Your task to perform on an android device: add a contact Image 0: 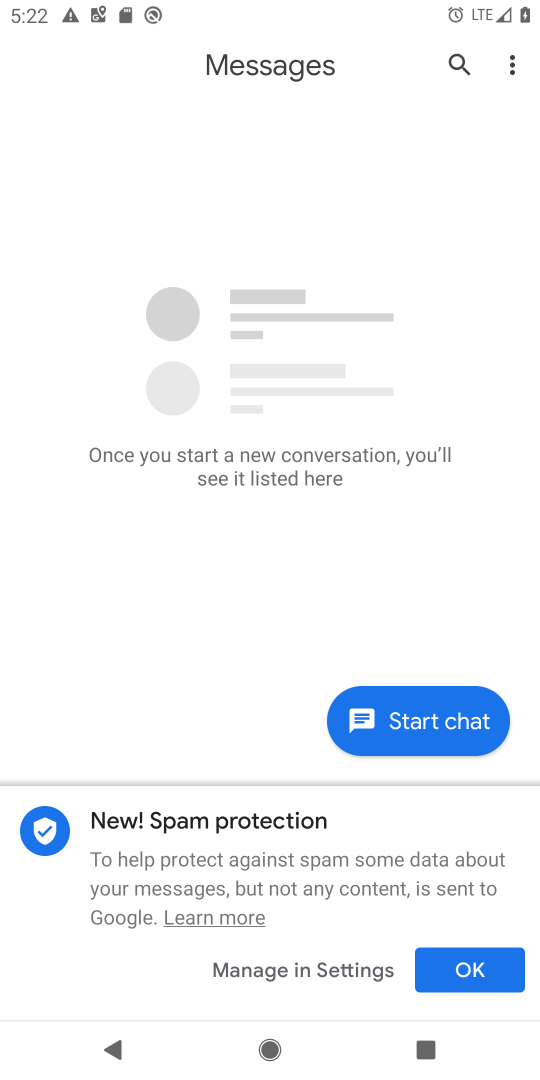
Step 0: press back button
Your task to perform on an android device: add a contact Image 1: 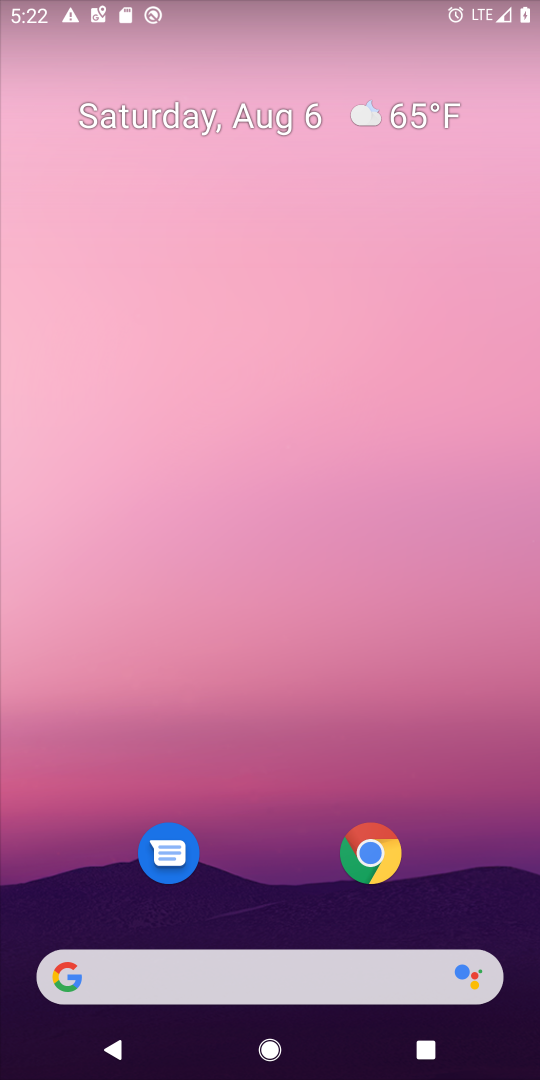
Step 1: drag from (233, 910) to (387, 108)
Your task to perform on an android device: add a contact Image 2: 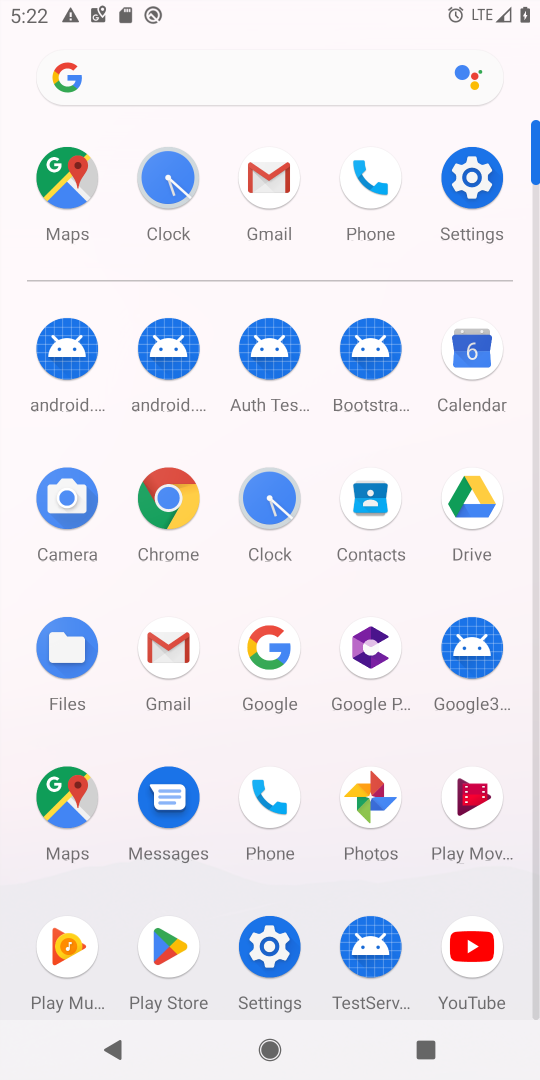
Step 2: click (373, 521)
Your task to perform on an android device: add a contact Image 3: 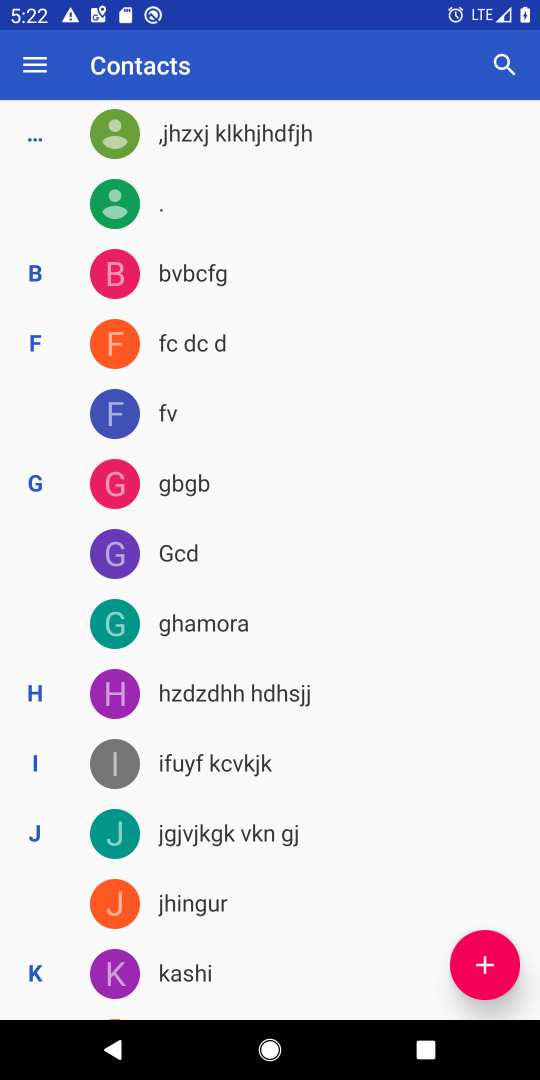
Step 3: click (470, 964)
Your task to perform on an android device: add a contact Image 4: 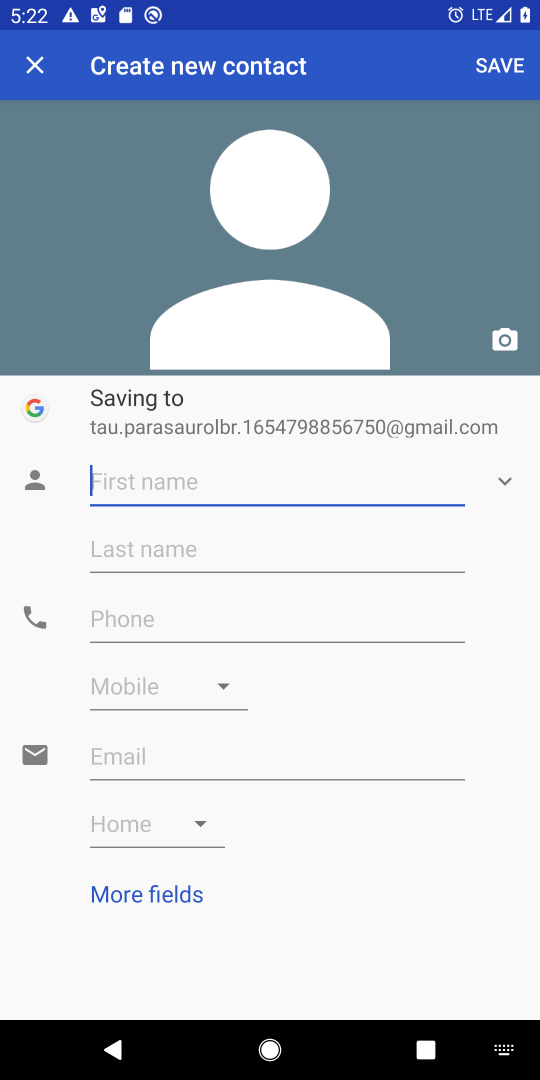
Step 4: click (194, 482)
Your task to perform on an android device: add a contact Image 5: 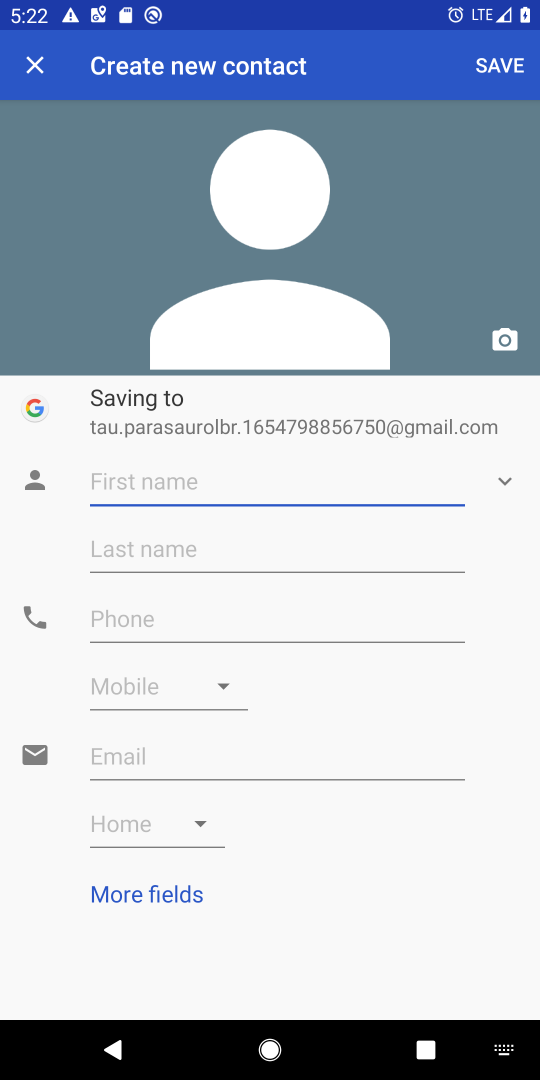
Step 5: type "hvhv"
Your task to perform on an android device: add a contact Image 6: 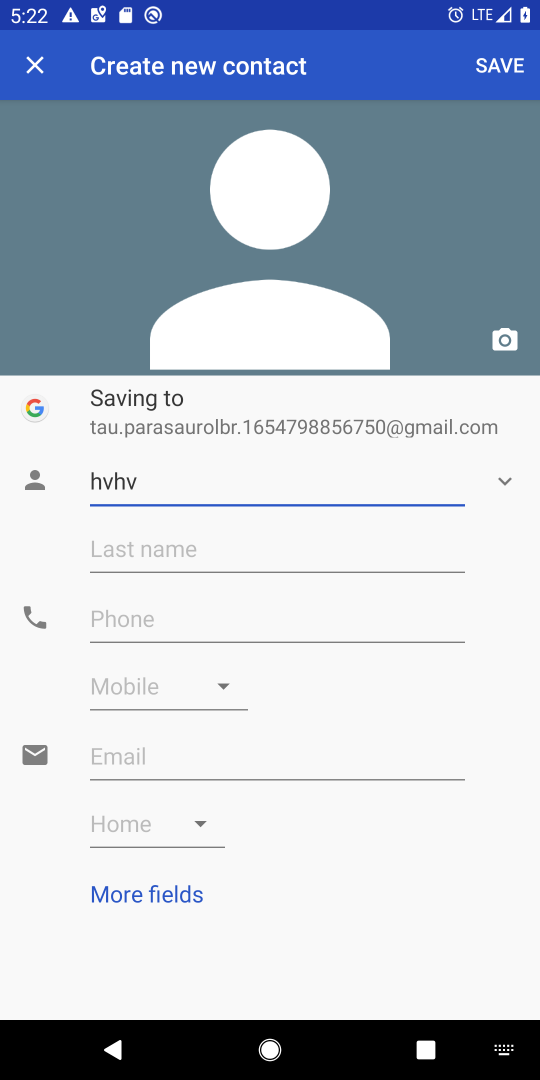
Step 6: click (113, 613)
Your task to perform on an android device: add a contact Image 7: 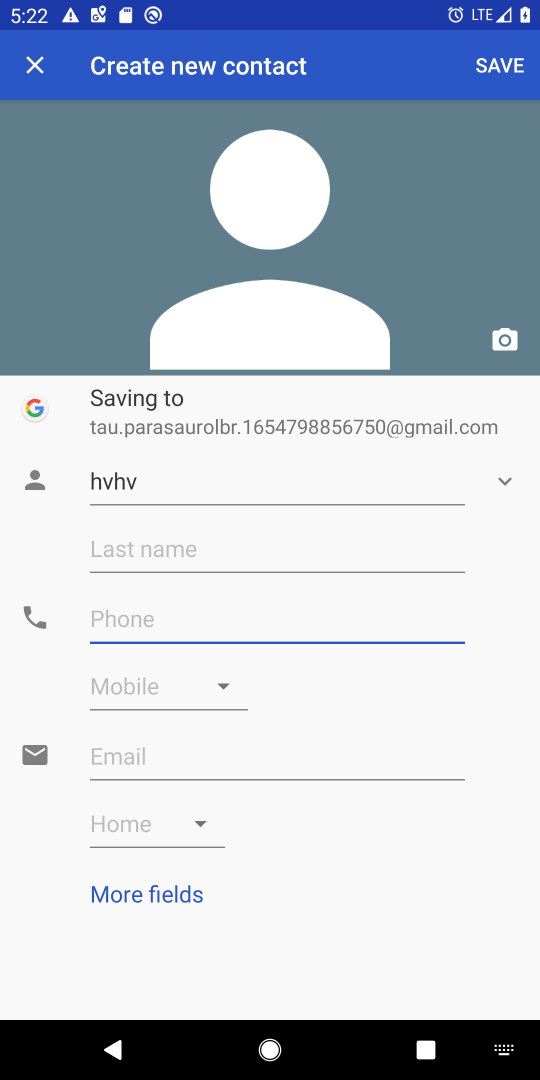
Step 7: type "787878"
Your task to perform on an android device: add a contact Image 8: 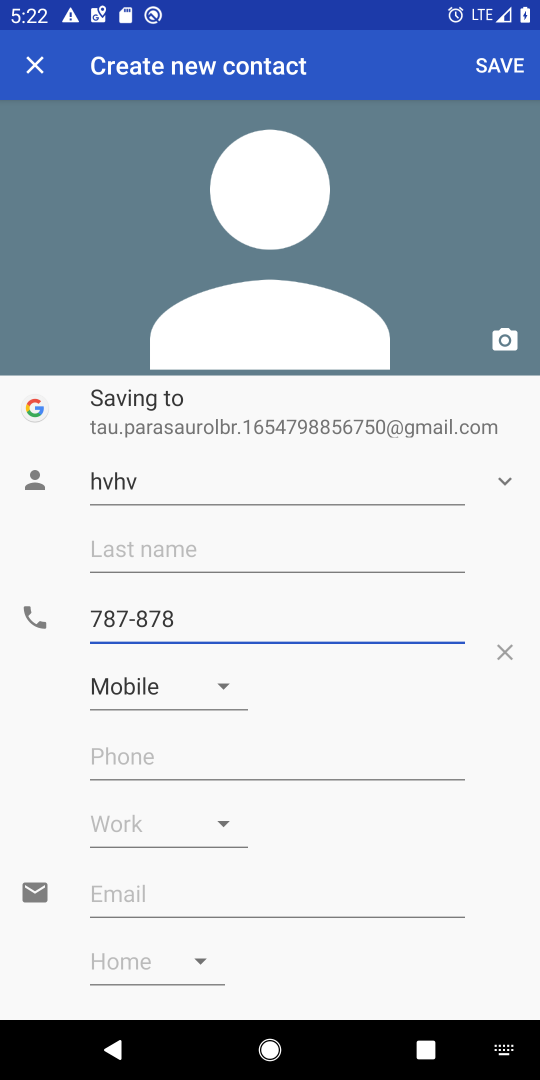
Step 8: click (501, 53)
Your task to perform on an android device: add a contact Image 9: 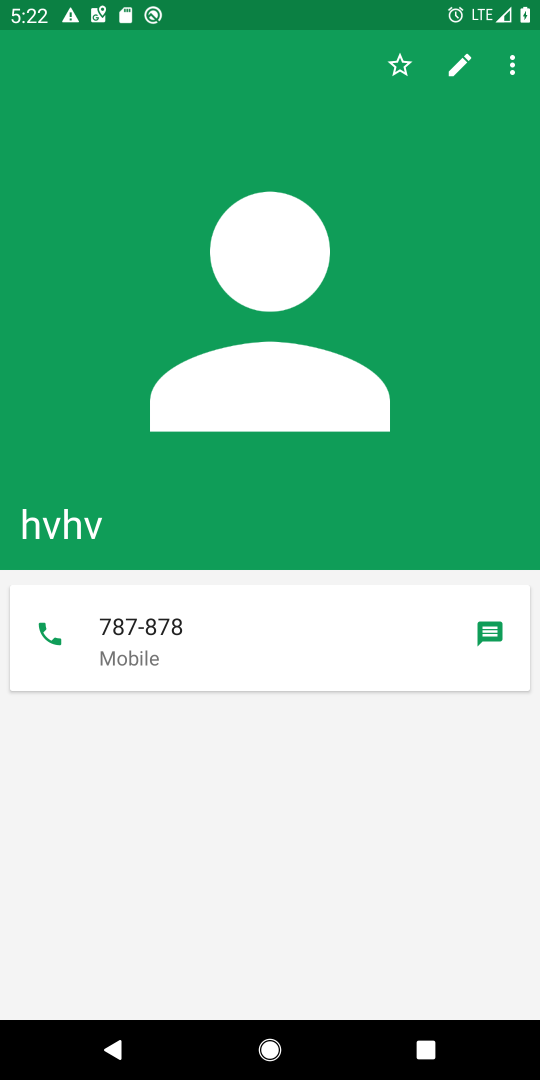
Step 9: task complete